Your task to perform on an android device: uninstall "Booking.com: Hotels and more" Image 0: 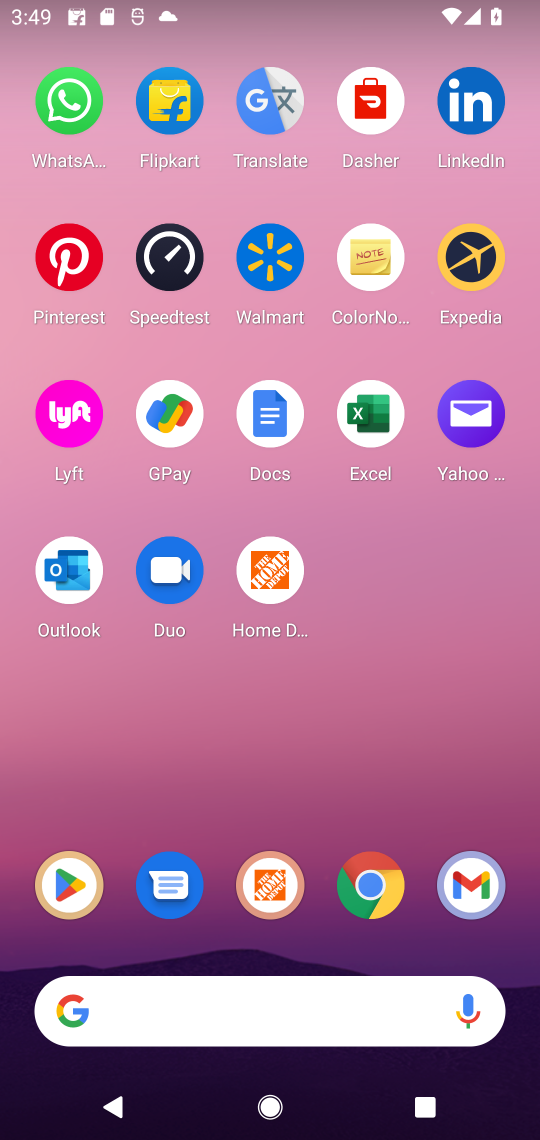
Step 0: click (71, 882)
Your task to perform on an android device: uninstall "Booking.com: Hotels and more" Image 1: 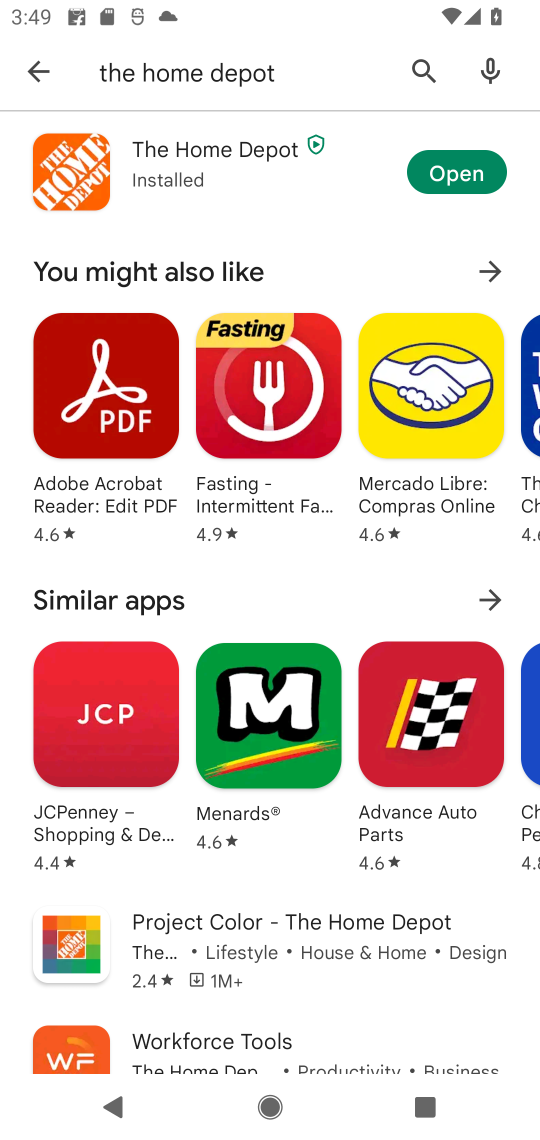
Step 1: click (426, 70)
Your task to perform on an android device: uninstall "Booking.com: Hotels and more" Image 2: 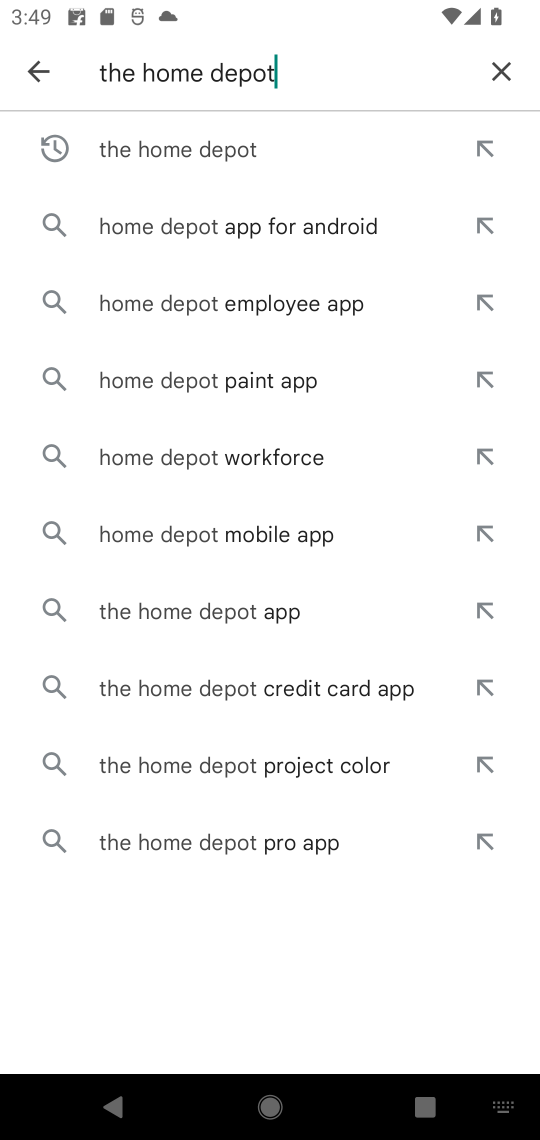
Step 2: click (507, 63)
Your task to perform on an android device: uninstall "Booking.com: Hotels and more" Image 3: 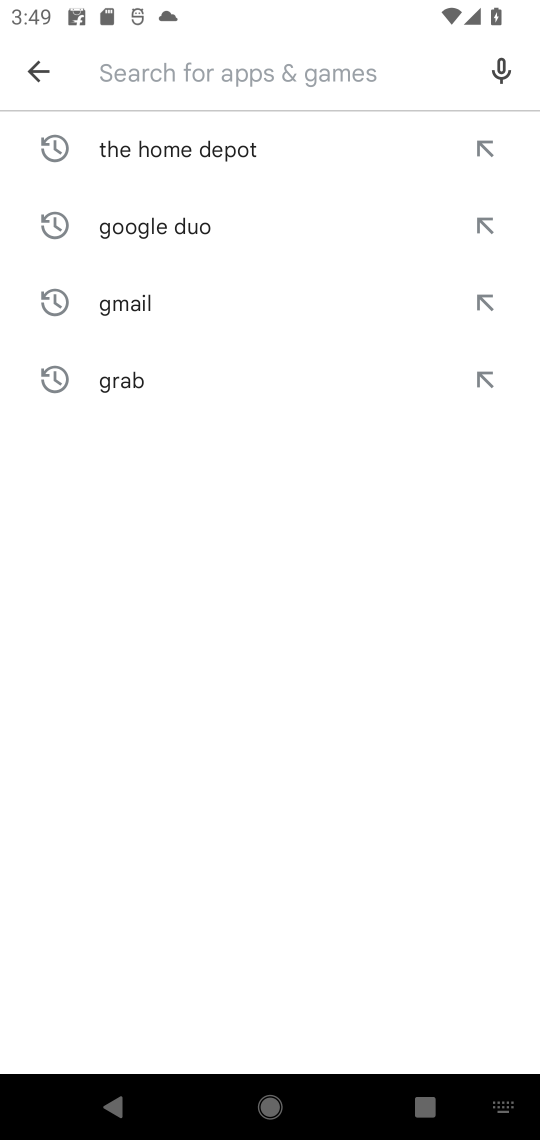
Step 3: click (431, 72)
Your task to perform on an android device: uninstall "Booking.com: Hotels and more" Image 4: 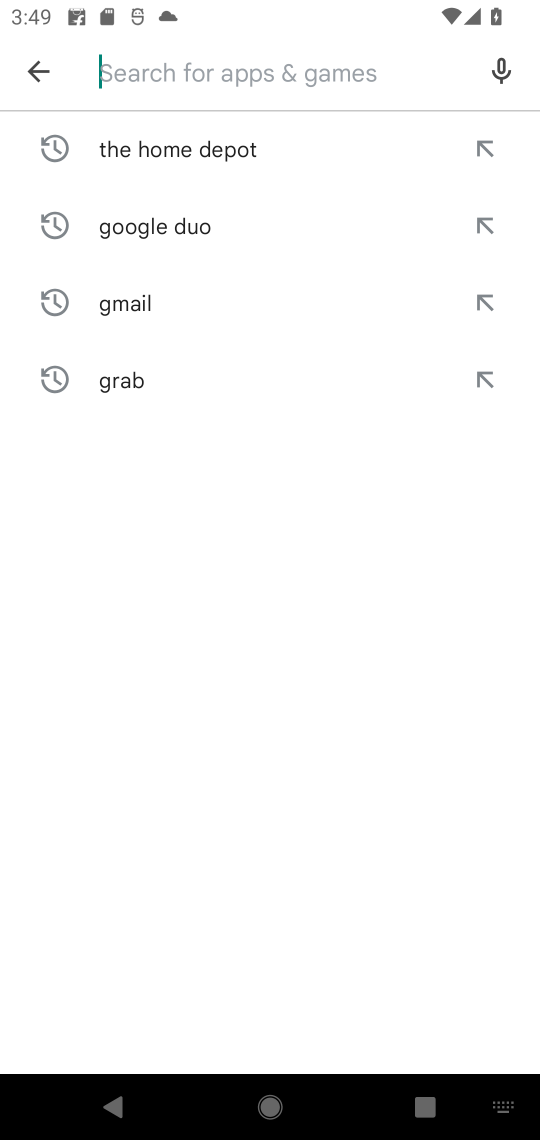
Step 4: type "Booking.com: Hotels and more"
Your task to perform on an android device: uninstall "Booking.com: Hotels and more" Image 5: 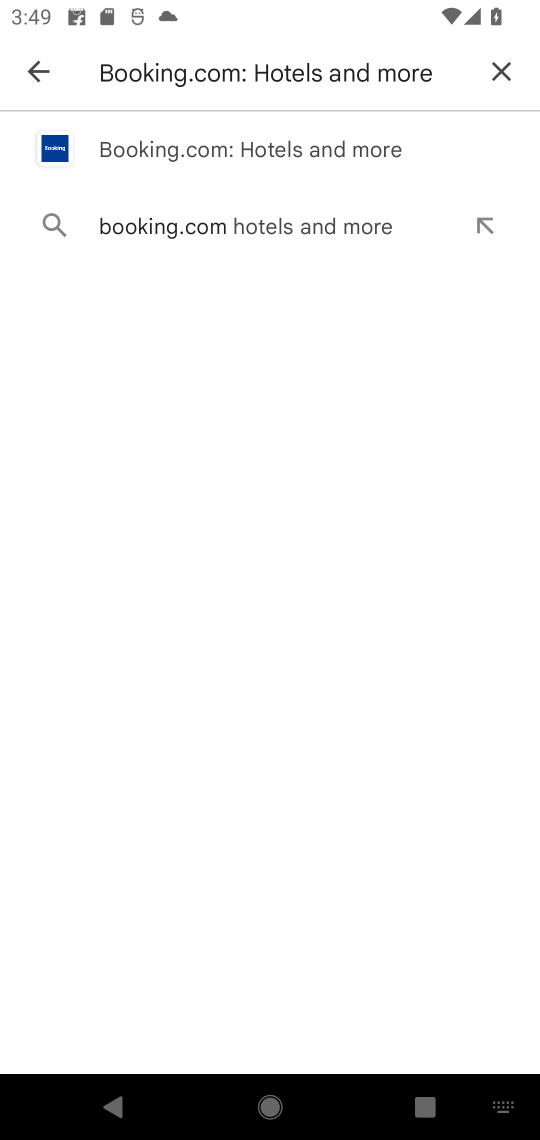
Step 5: click (260, 155)
Your task to perform on an android device: uninstall "Booking.com: Hotels and more" Image 6: 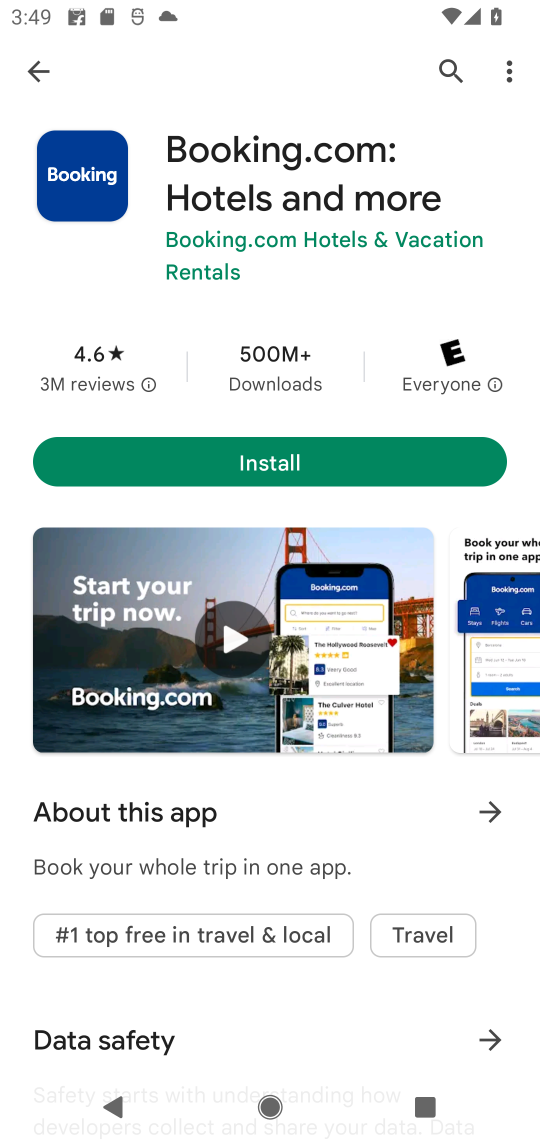
Step 6: task complete